Your task to perform on an android device: Open battery settings Image 0: 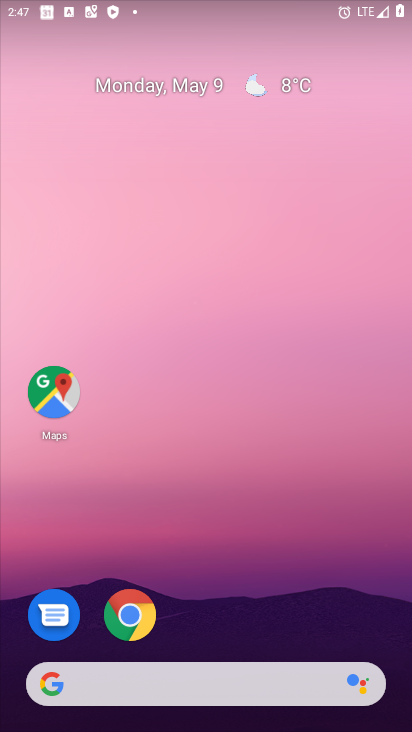
Step 0: drag from (398, 640) to (342, 36)
Your task to perform on an android device: Open battery settings Image 1: 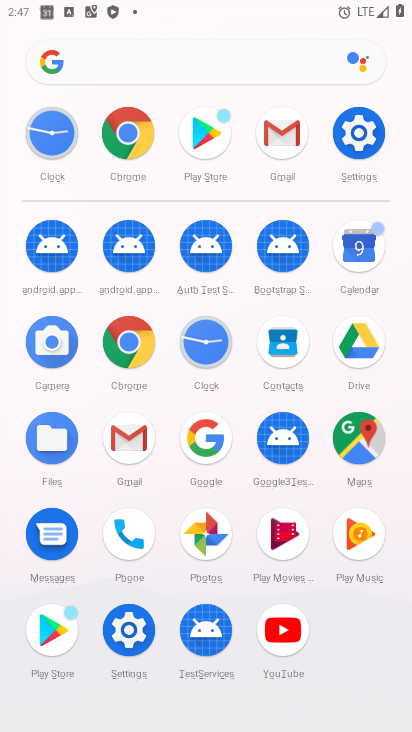
Step 1: click (126, 631)
Your task to perform on an android device: Open battery settings Image 2: 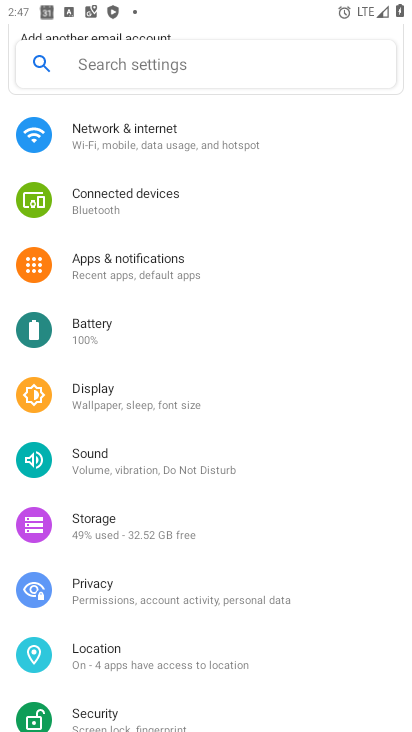
Step 2: click (94, 328)
Your task to perform on an android device: Open battery settings Image 3: 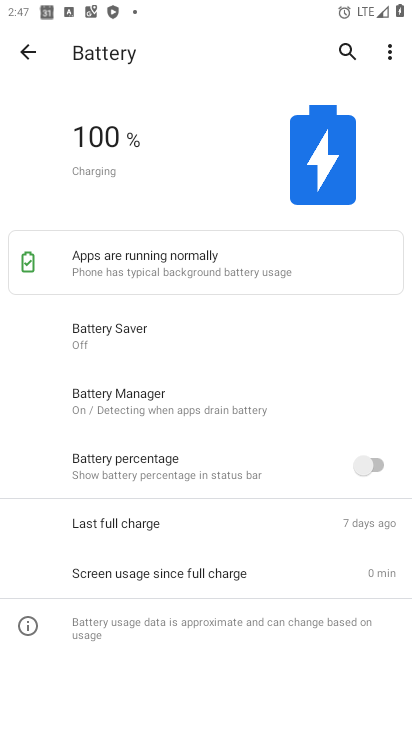
Step 3: task complete